Your task to perform on an android device: Open CNN.com Image 0: 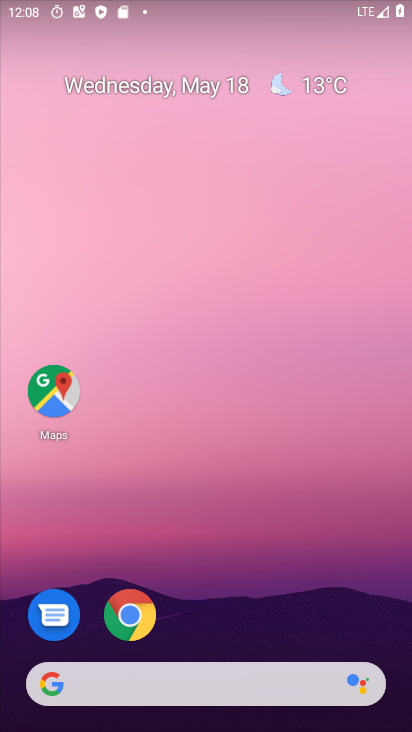
Step 0: press home button
Your task to perform on an android device: Open CNN.com Image 1: 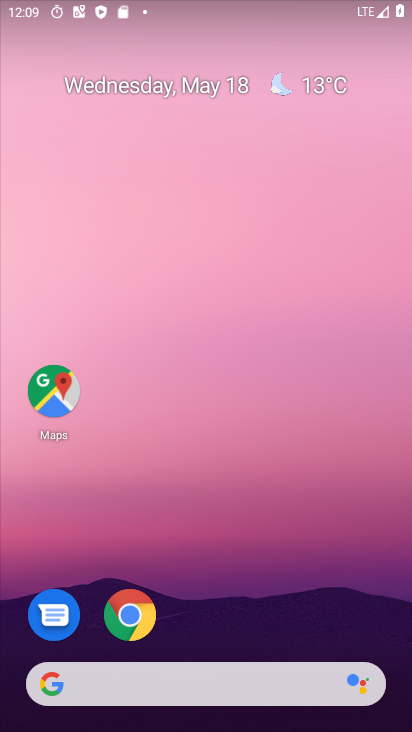
Step 1: click (129, 621)
Your task to perform on an android device: Open CNN.com Image 2: 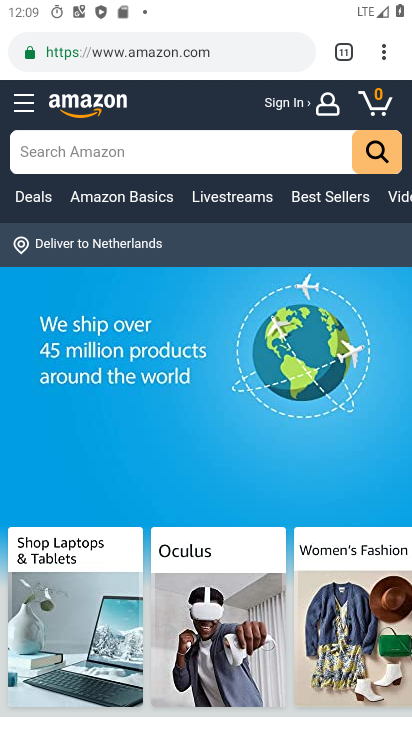
Step 2: drag from (383, 53) to (290, 95)
Your task to perform on an android device: Open CNN.com Image 3: 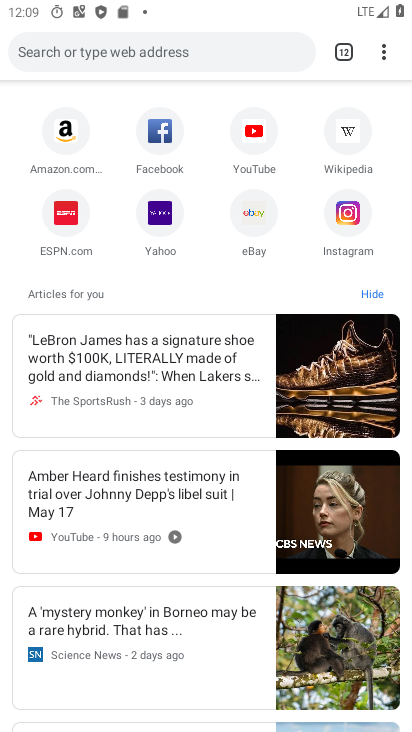
Step 3: click (129, 50)
Your task to perform on an android device: Open CNN.com Image 4: 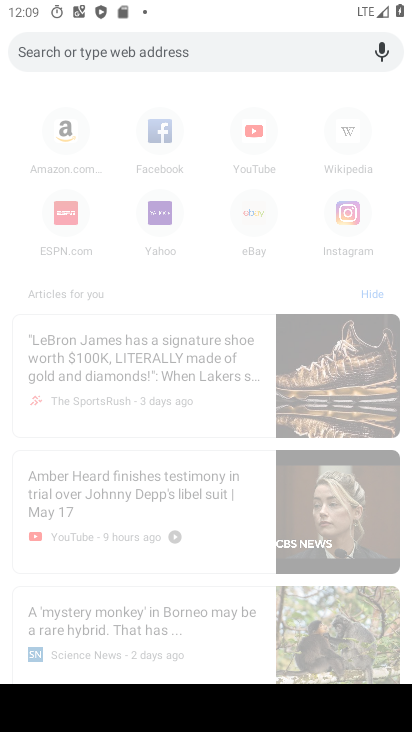
Step 4: type "cnn.com"
Your task to perform on an android device: Open CNN.com Image 5: 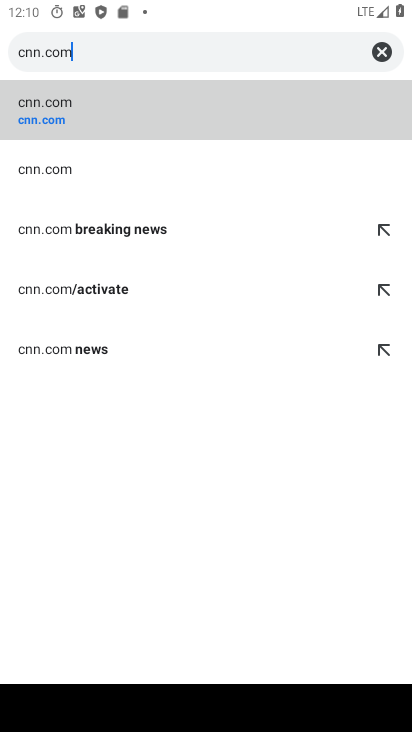
Step 5: click (135, 119)
Your task to perform on an android device: Open CNN.com Image 6: 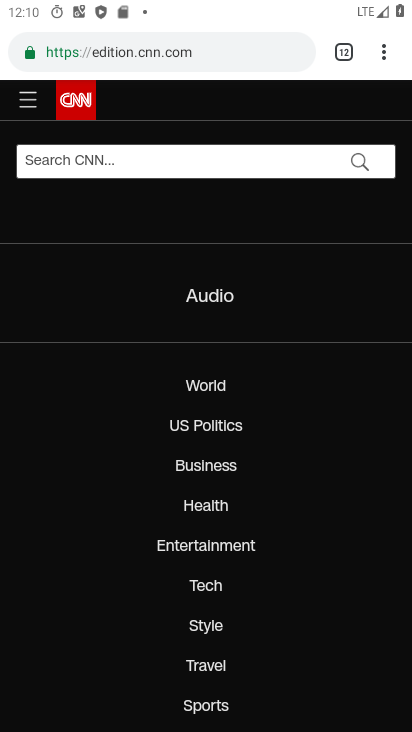
Step 6: task complete